Your task to perform on an android device: turn on priority inbox in the gmail app Image 0: 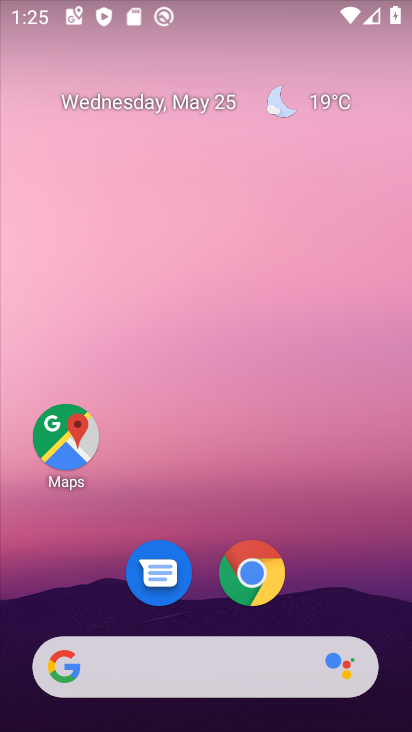
Step 0: drag from (380, 610) to (292, 40)
Your task to perform on an android device: turn on priority inbox in the gmail app Image 1: 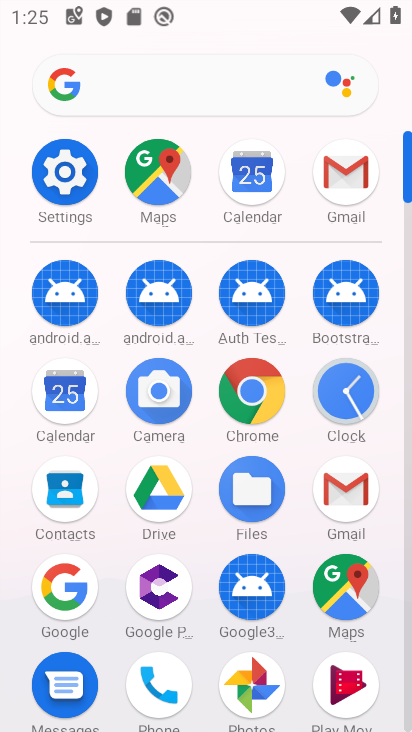
Step 1: click (409, 659)
Your task to perform on an android device: turn on priority inbox in the gmail app Image 2: 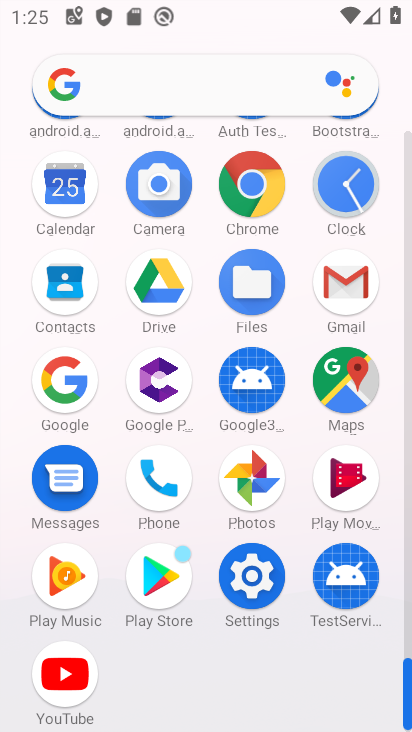
Step 2: click (343, 282)
Your task to perform on an android device: turn on priority inbox in the gmail app Image 3: 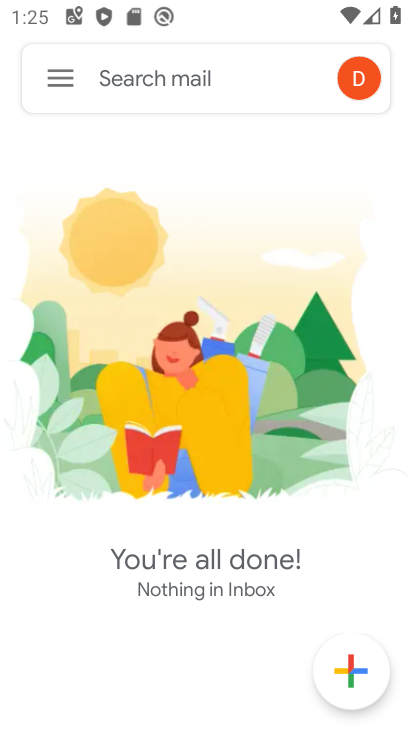
Step 3: click (62, 75)
Your task to perform on an android device: turn on priority inbox in the gmail app Image 4: 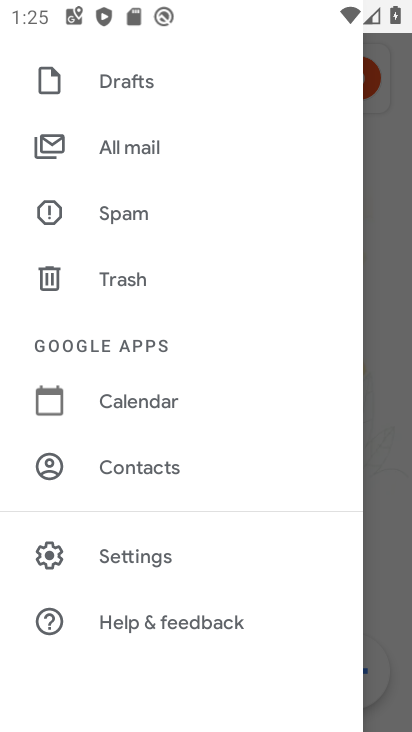
Step 4: click (156, 552)
Your task to perform on an android device: turn on priority inbox in the gmail app Image 5: 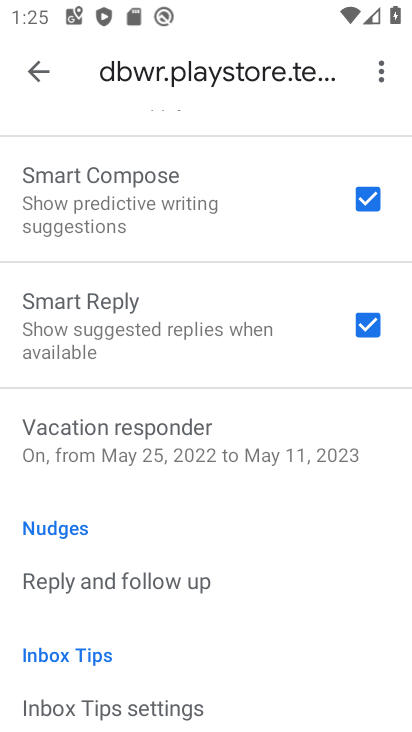
Step 5: drag from (276, 202) to (215, 557)
Your task to perform on an android device: turn on priority inbox in the gmail app Image 6: 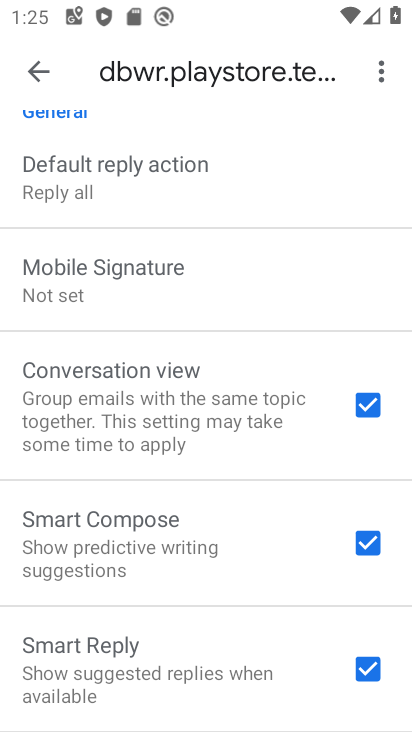
Step 6: drag from (207, 231) to (203, 513)
Your task to perform on an android device: turn on priority inbox in the gmail app Image 7: 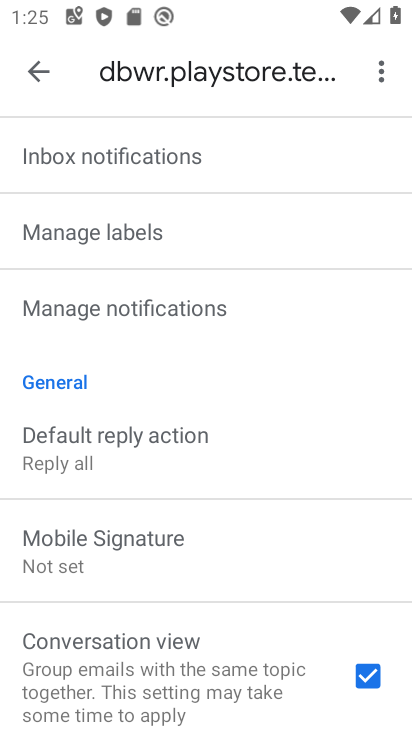
Step 7: drag from (226, 267) to (219, 631)
Your task to perform on an android device: turn on priority inbox in the gmail app Image 8: 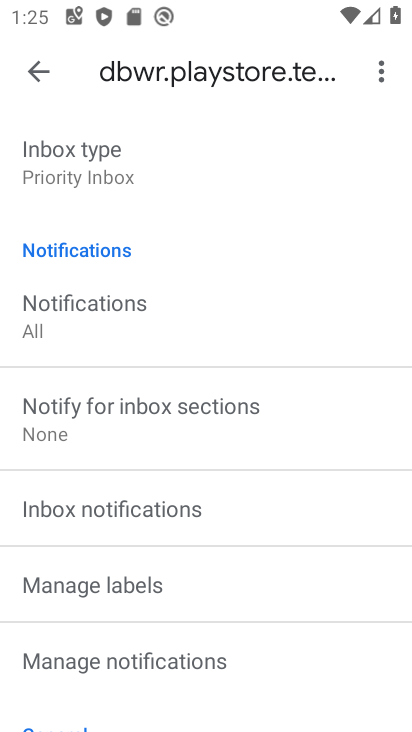
Step 8: drag from (78, 179) to (206, 458)
Your task to perform on an android device: turn on priority inbox in the gmail app Image 9: 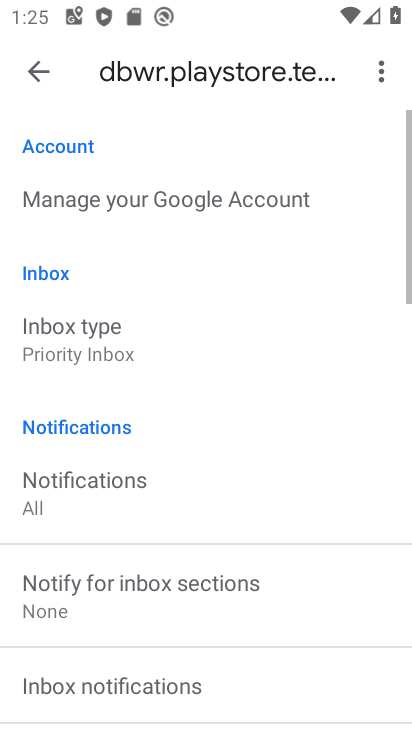
Step 9: click (56, 349)
Your task to perform on an android device: turn on priority inbox in the gmail app Image 10: 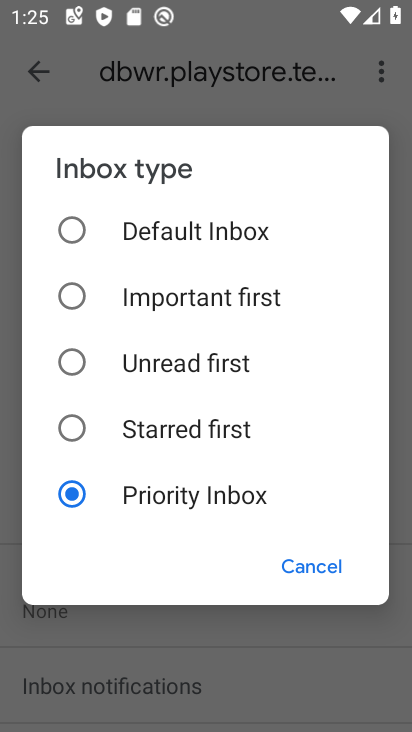
Step 10: task complete